Your task to perform on an android device: turn off translation in the chrome app Image 0: 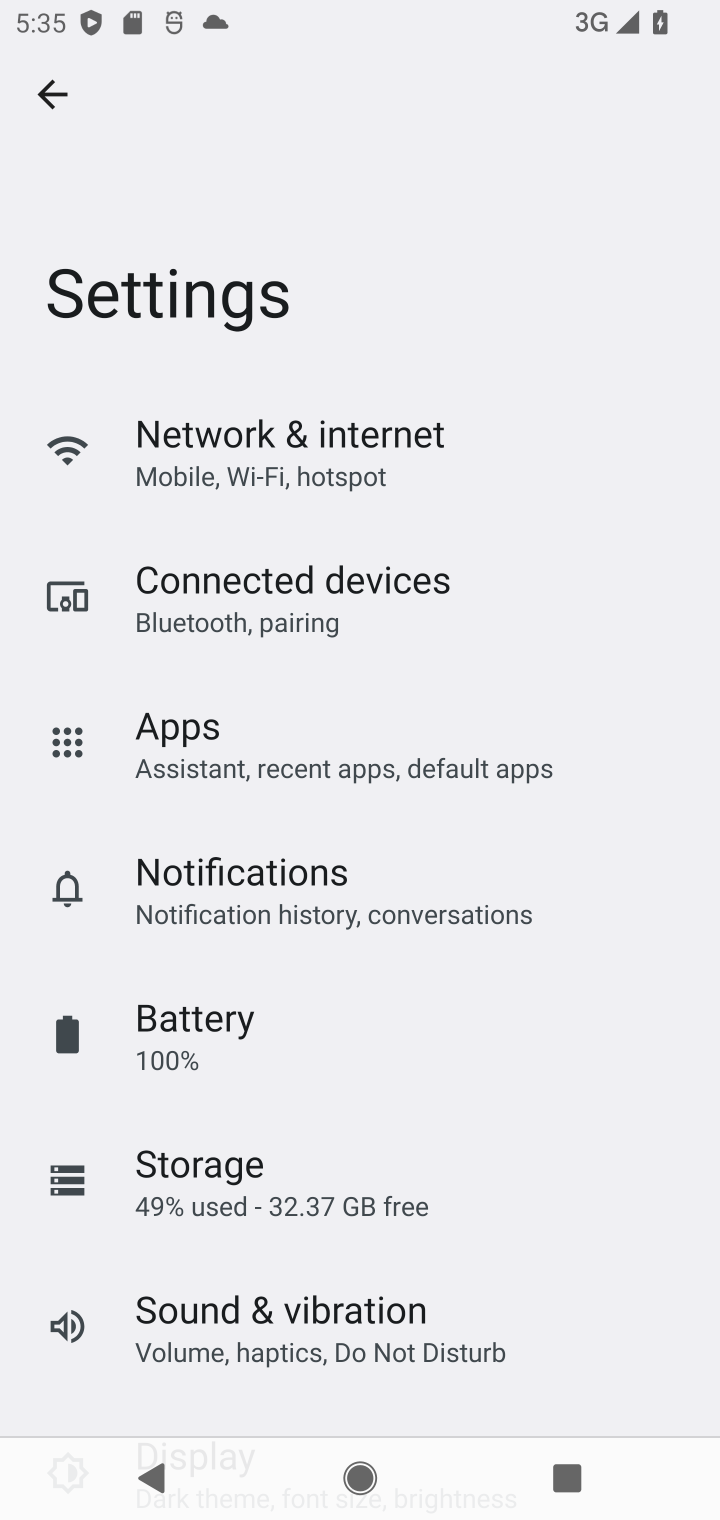
Step 0: press home button
Your task to perform on an android device: turn off translation in the chrome app Image 1: 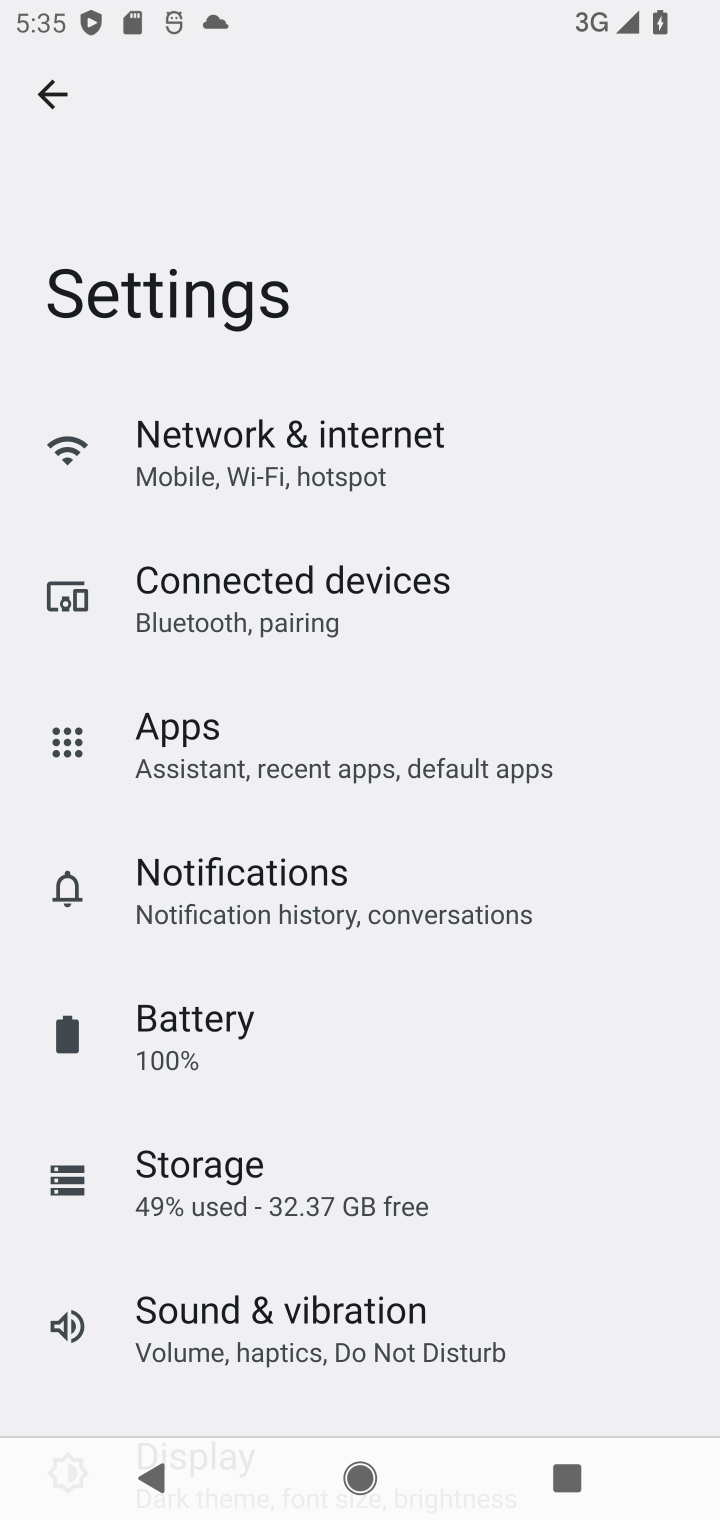
Step 1: press home button
Your task to perform on an android device: turn off translation in the chrome app Image 2: 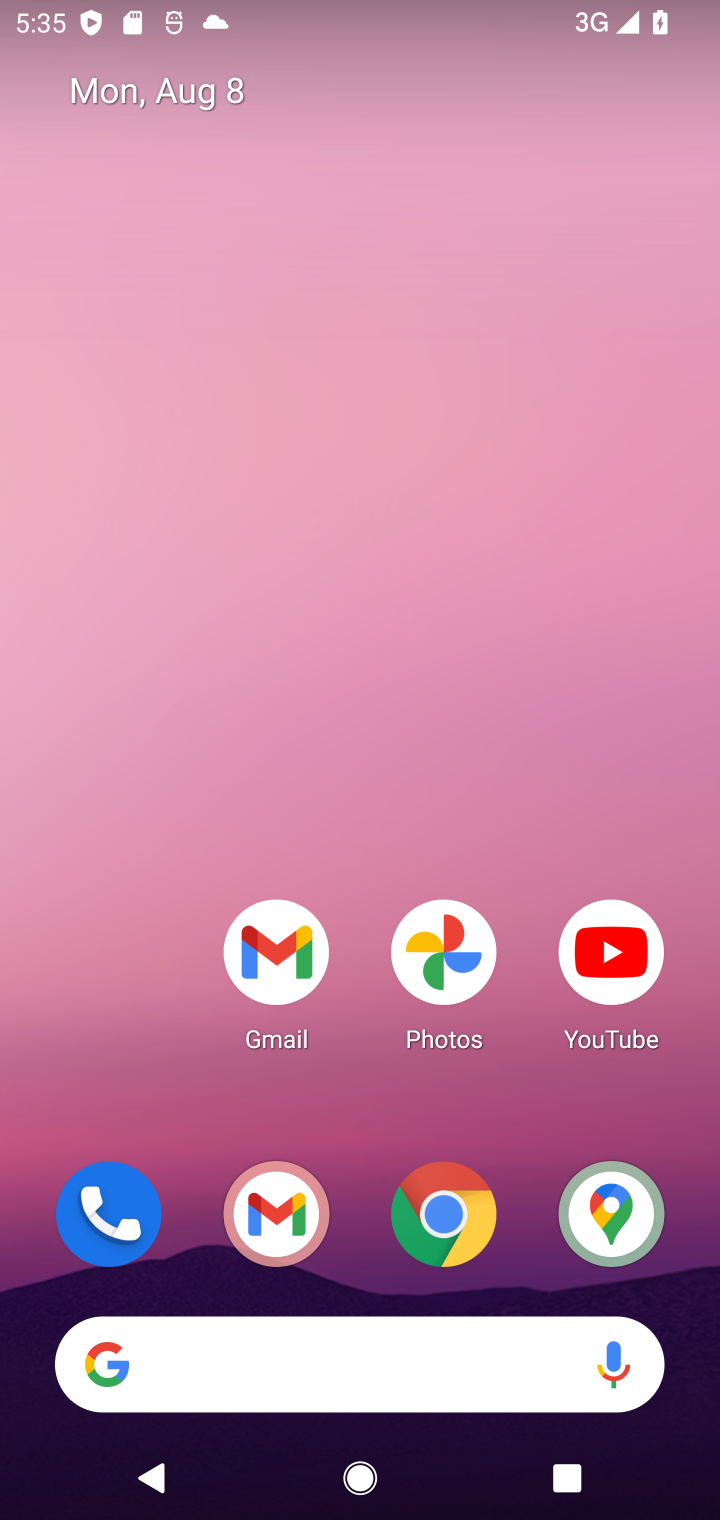
Step 2: drag from (345, 1153) to (336, 236)
Your task to perform on an android device: turn off translation in the chrome app Image 3: 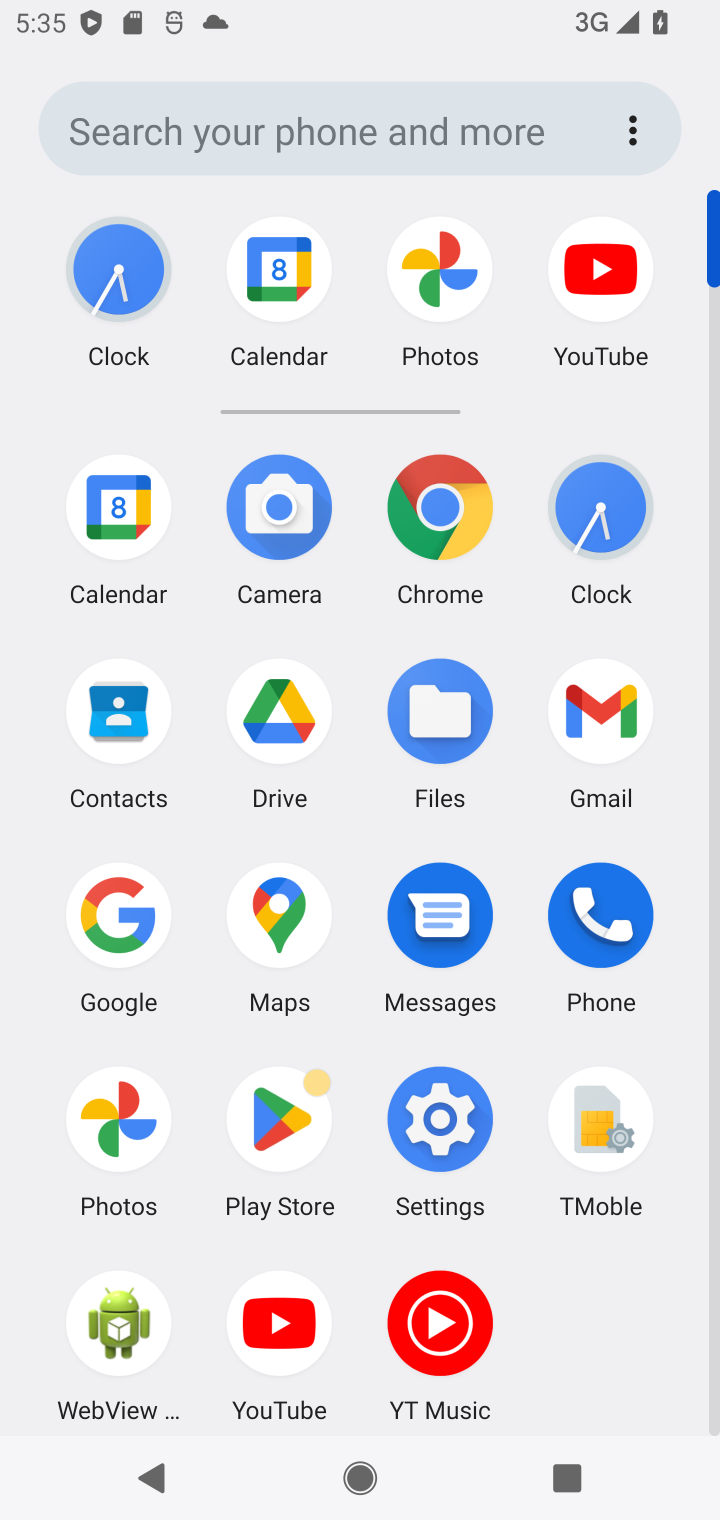
Step 3: click (441, 502)
Your task to perform on an android device: turn off translation in the chrome app Image 4: 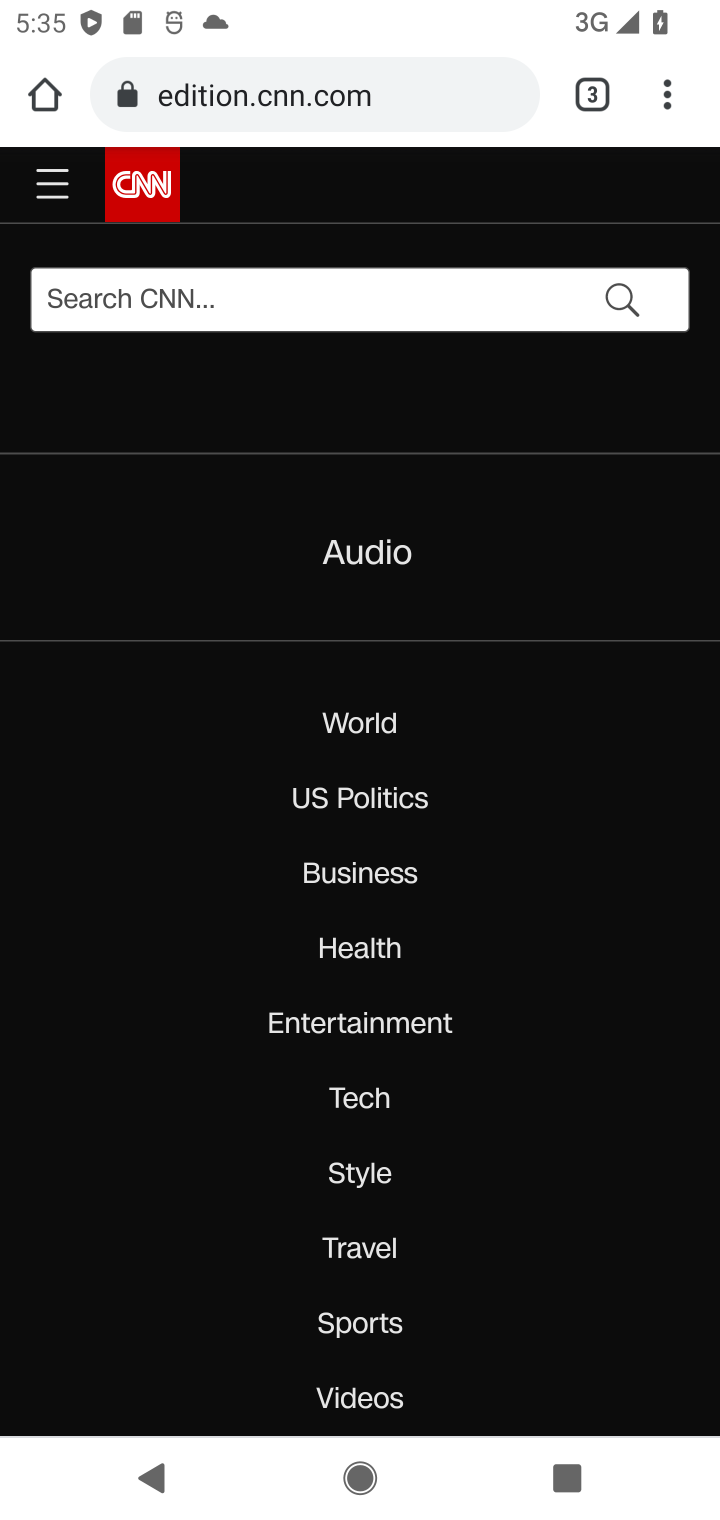
Step 4: drag from (666, 106) to (448, 1227)
Your task to perform on an android device: turn off translation in the chrome app Image 5: 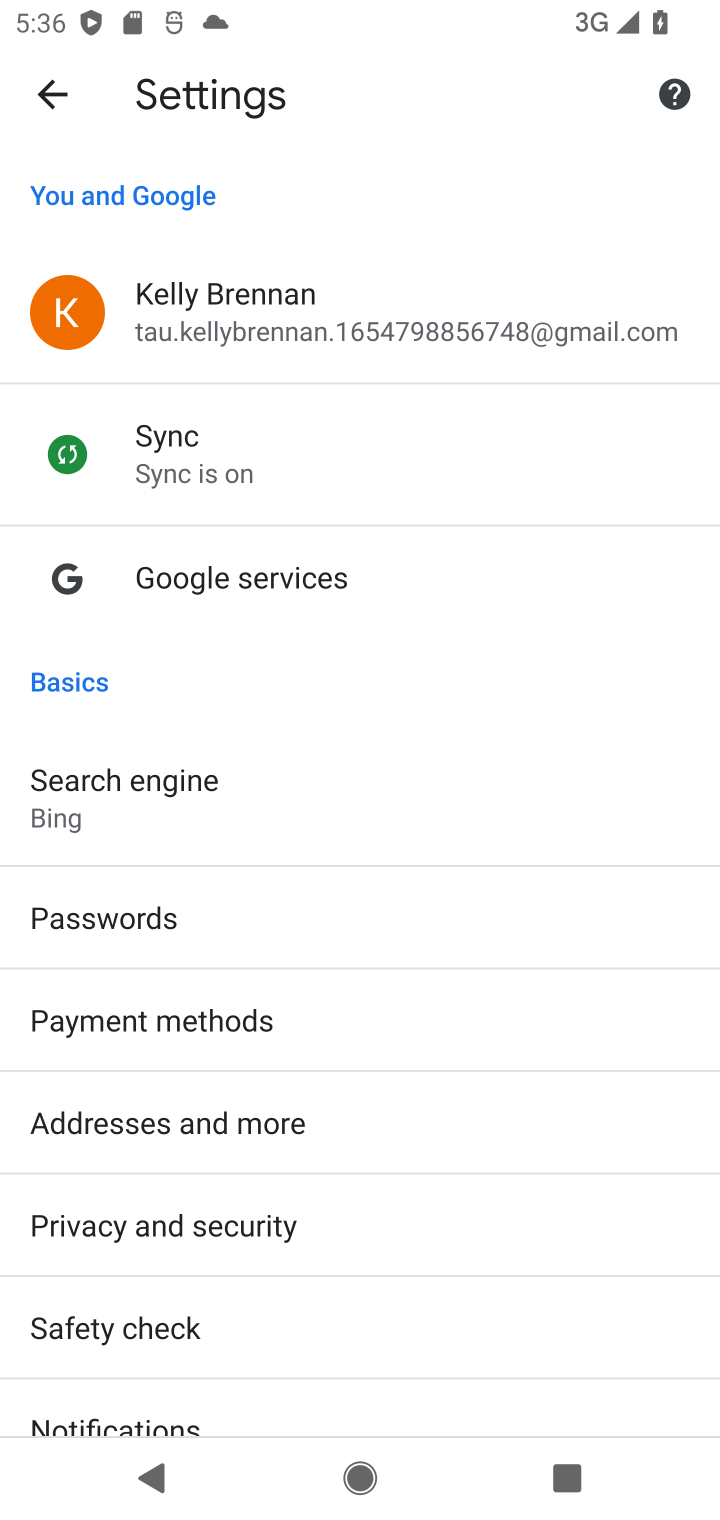
Step 5: drag from (250, 1267) to (262, 884)
Your task to perform on an android device: turn off translation in the chrome app Image 6: 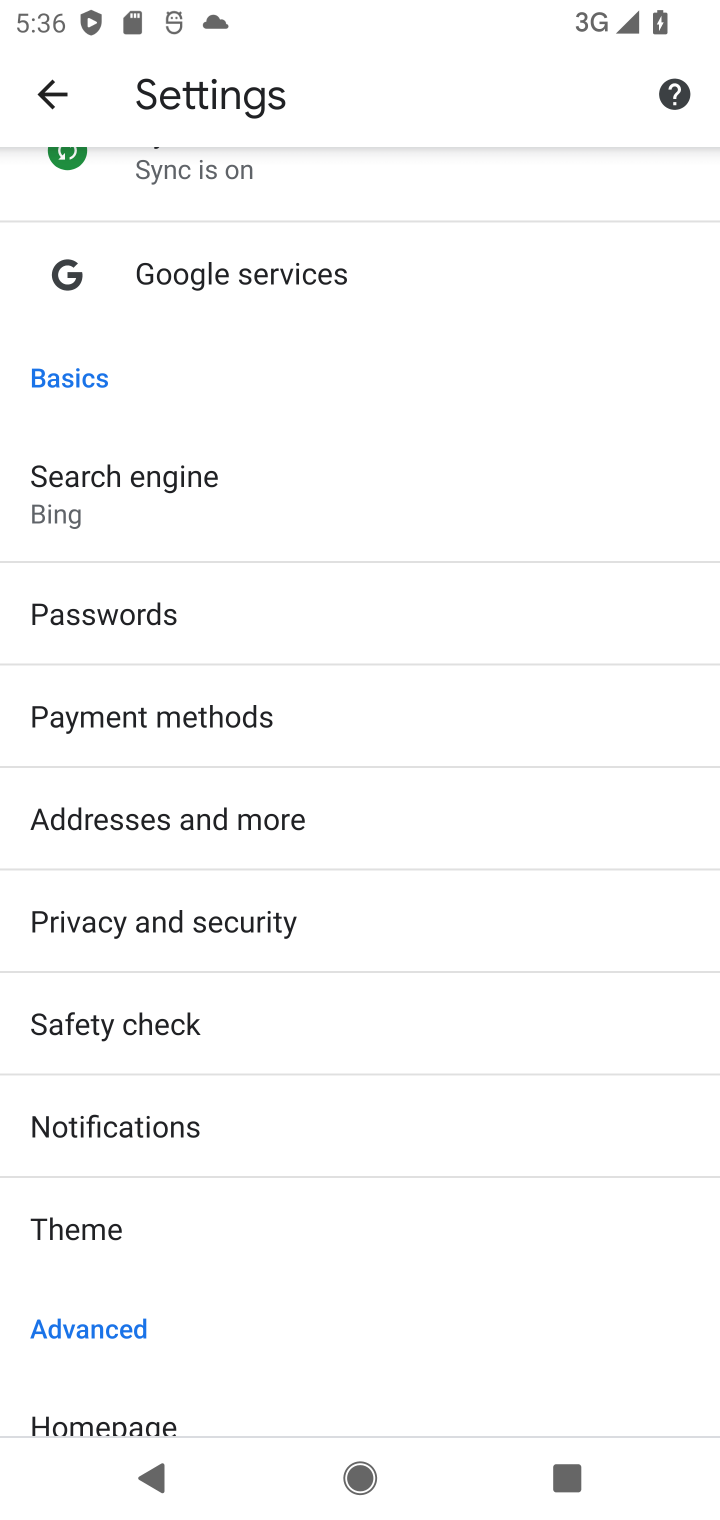
Step 6: drag from (198, 1306) to (186, 478)
Your task to perform on an android device: turn off translation in the chrome app Image 7: 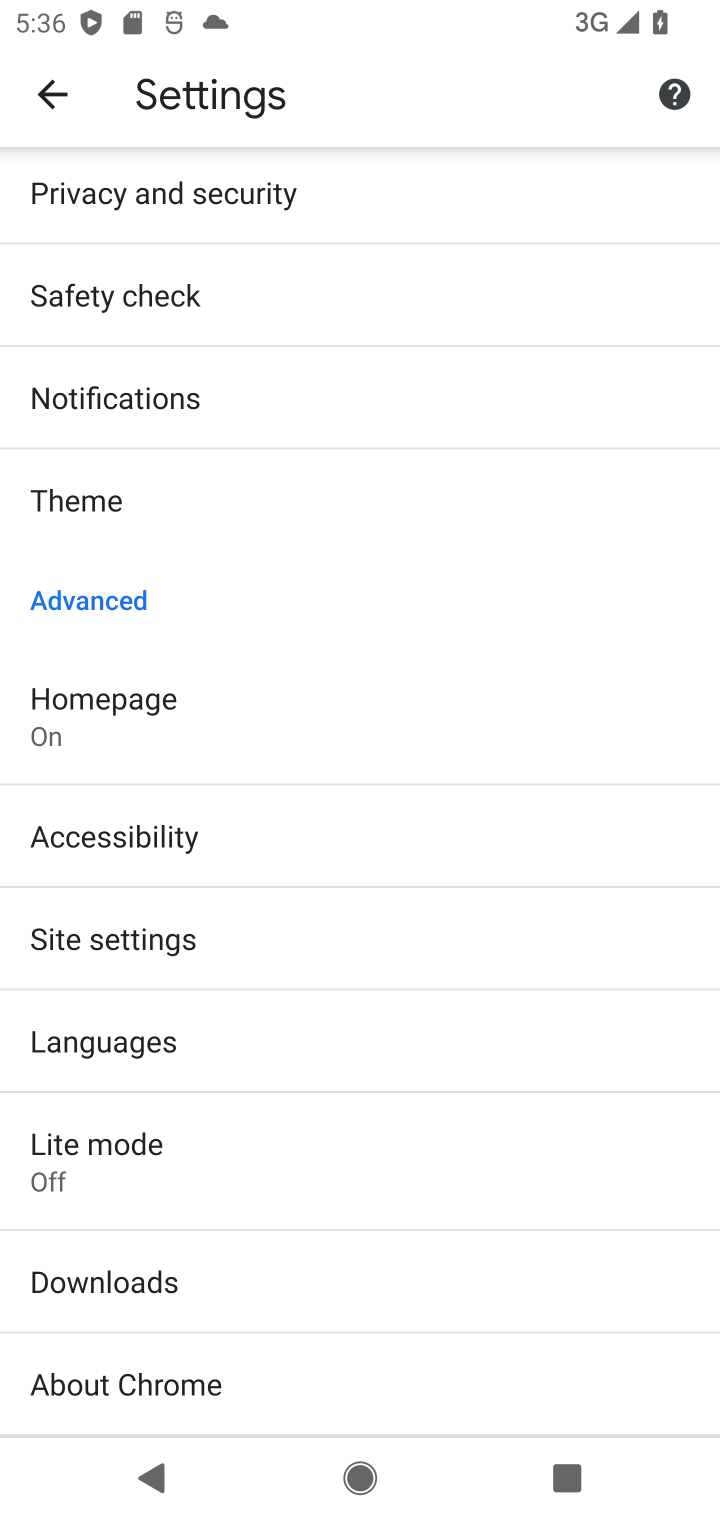
Step 7: click (130, 1045)
Your task to perform on an android device: turn off translation in the chrome app Image 8: 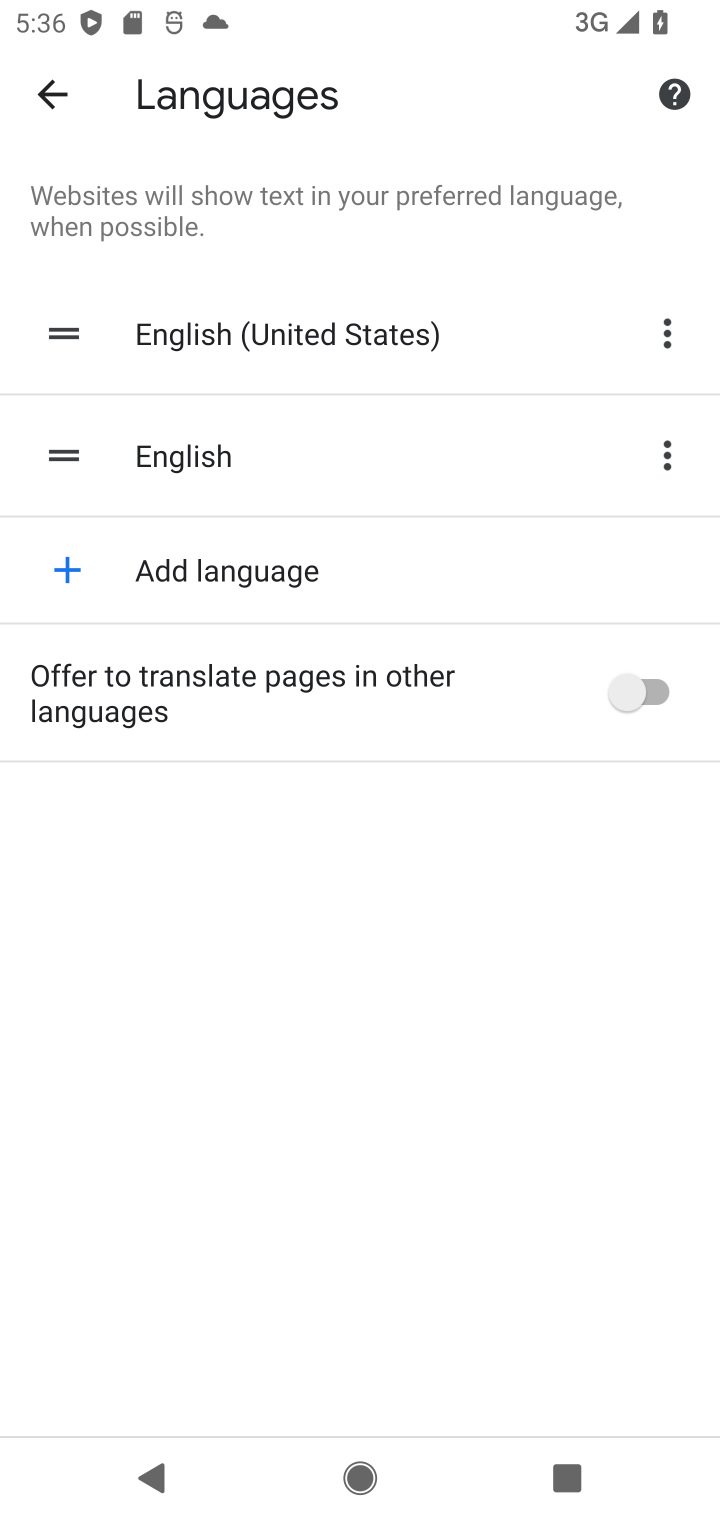
Step 8: task complete